Your task to perform on an android device: Open Chrome and go to settings Image 0: 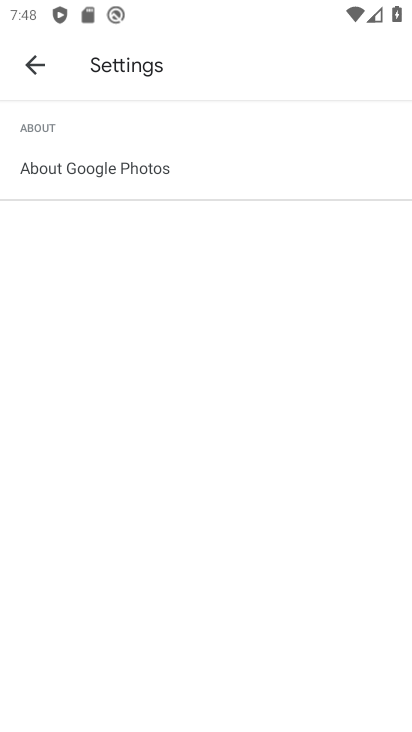
Step 0: press home button
Your task to perform on an android device: Open Chrome and go to settings Image 1: 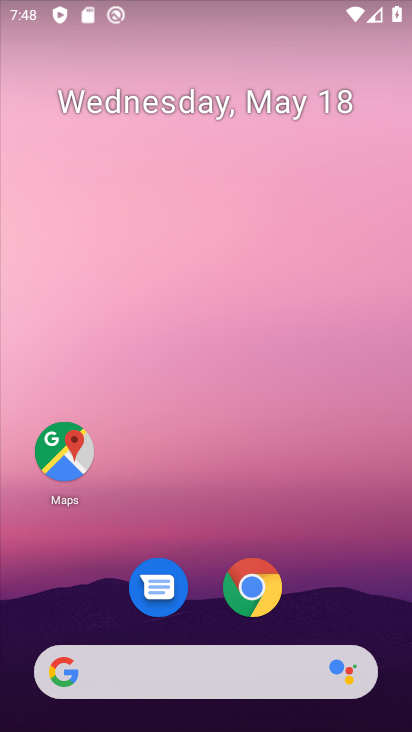
Step 1: drag from (253, 548) to (260, 46)
Your task to perform on an android device: Open Chrome and go to settings Image 2: 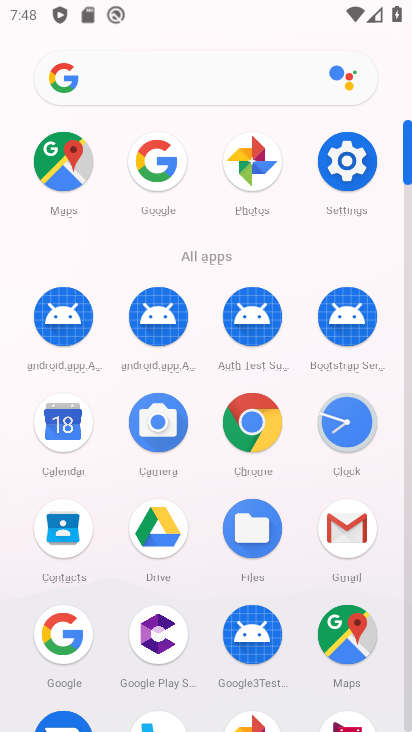
Step 2: click (276, 441)
Your task to perform on an android device: Open Chrome and go to settings Image 3: 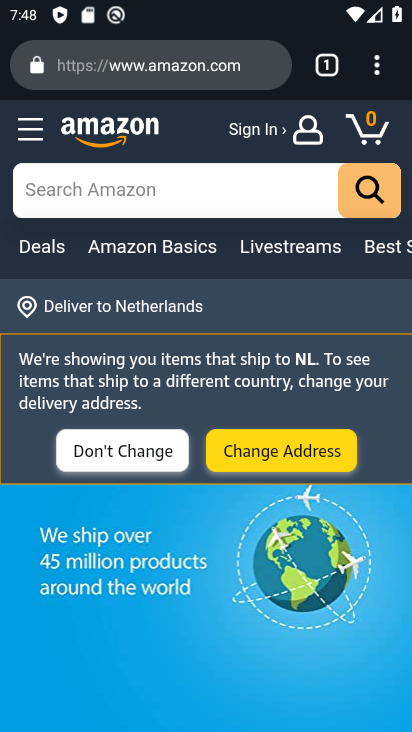
Step 3: click (385, 70)
Your task to perform on an android device: Open Chrome and go to settings Image 4: 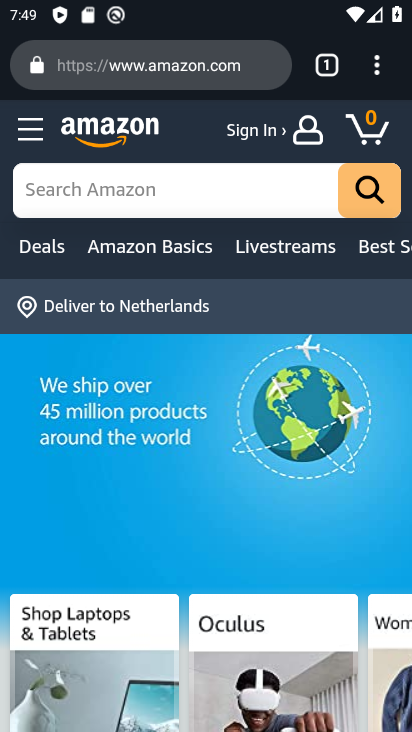
Step 4: click (385, 70)
Your task to perform on an android device: Open Chrome and go to settings Image 5: 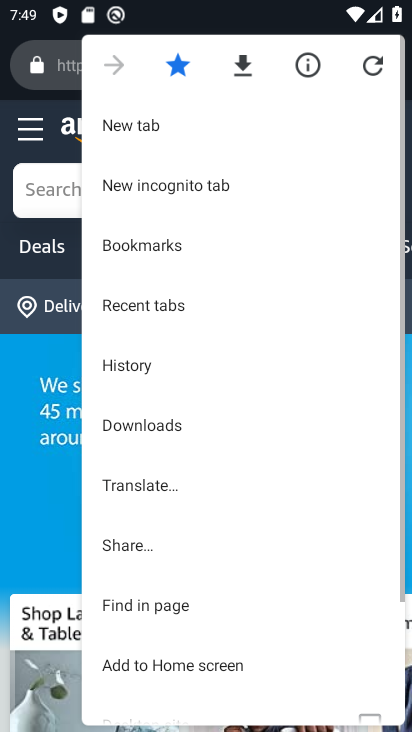
Step 5: drag from (259, 616) to (323, 114)
Your task to perform on an android device: Open Chrome and go to settings Image 6: 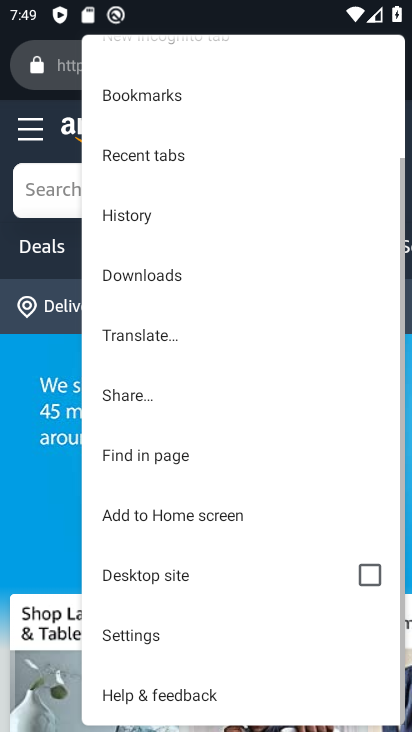
Step 6: click (177, 645)
Your task to perform on an android device: Open Chrome and go to settings Image 7: 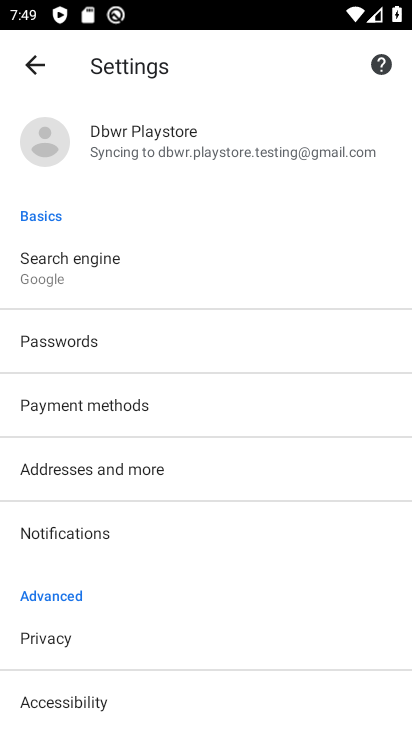
Step 7: task complete